Your task to perform on an android device: turn off smart reply in the gmail app Image 0: 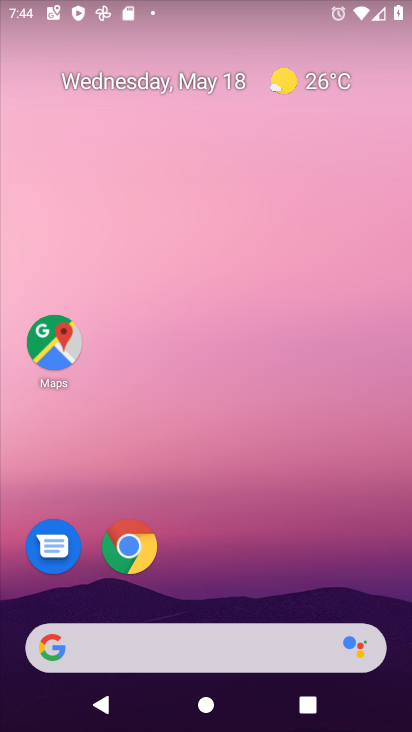
Step 0: drag from (384, 612) to (295, 54)
Your task to perform on an android device: turn off smart reply in the gmail app Image 1: 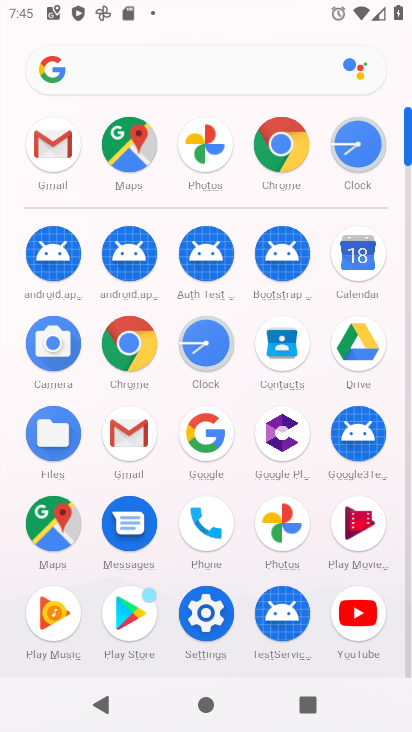
Step 1: click (119, 428)
Your task to perform on an android device: turn off smart reply in the gmail app Image 2: 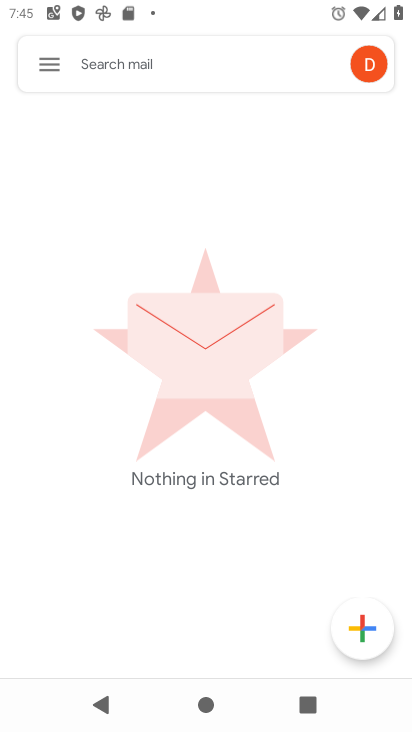
Step 2: click (38, 57)
Your task to perform on an android device: turn off smart reply in the gmail app Image 3: 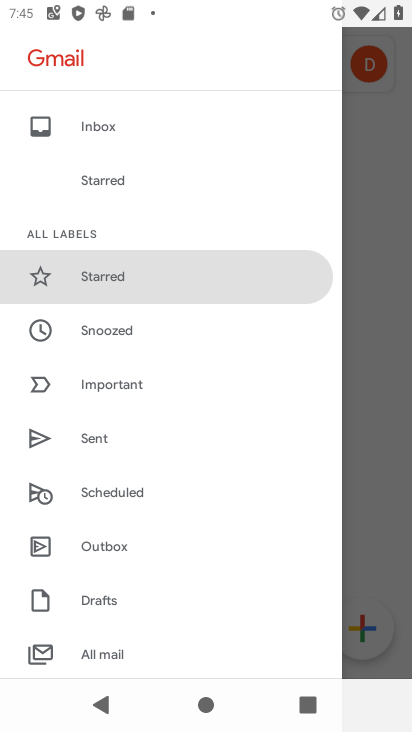
Step 3: drag from (153, 659) to (225, 64)
Your task to perform on an android device: turn off smart reply in the gmail app Image 4: 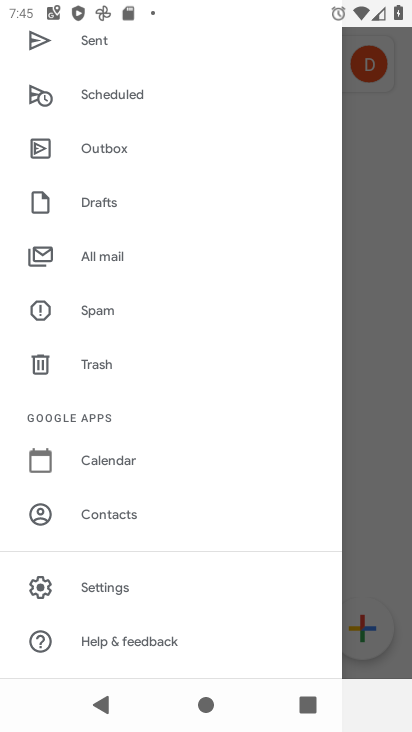
Step 4: click (151, 583)
Your task to perform on an android device: turn off smart reply in the gmail app Image 5: 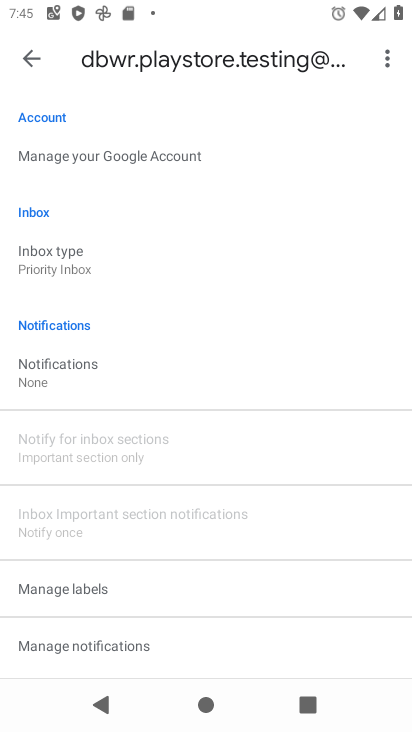
Step 5: task complete